Your task to perform on an android device: Open Google Maps Image 0: 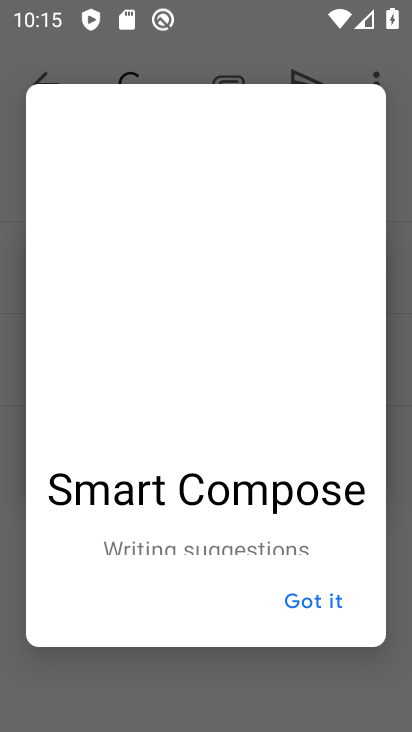
Step 0: drag from (201, 590) to (286, 144)
Your task to perform on an android device: Open Google Maps Image 1: 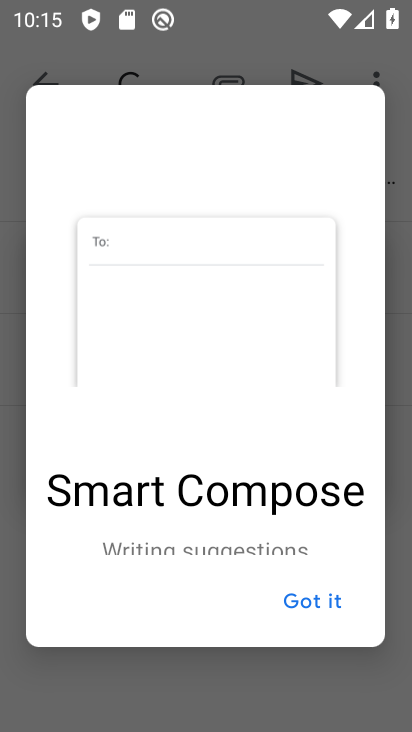
Step 1: press back button
Your task to perform on an android device: Open Google Maps Image 2: 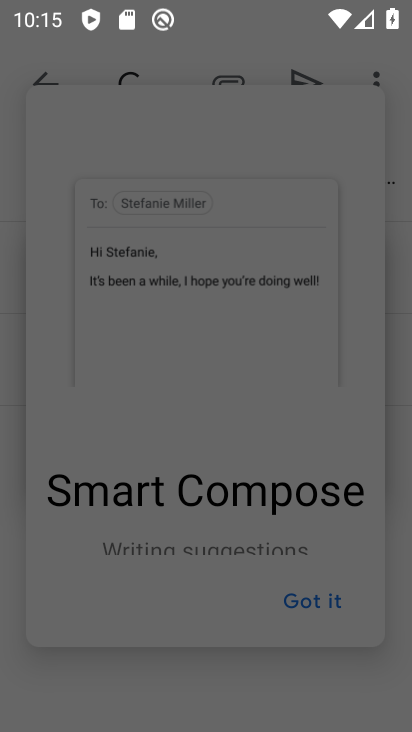
Step 2: press back button
Your task to perform on an android device: Open Google Maps Image 3: 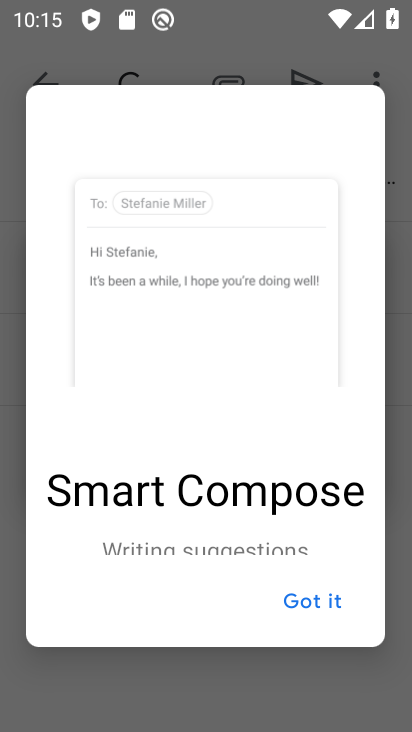
Step 3: press home button
Your task to perform on an android device: Open Google Maps Image 4: 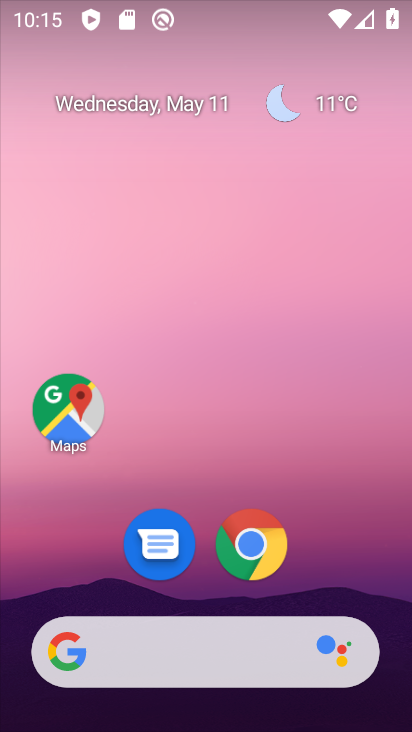
Step 4: click (64, 397)
Your task to perform on an android device: Open Google Maps Image 5: 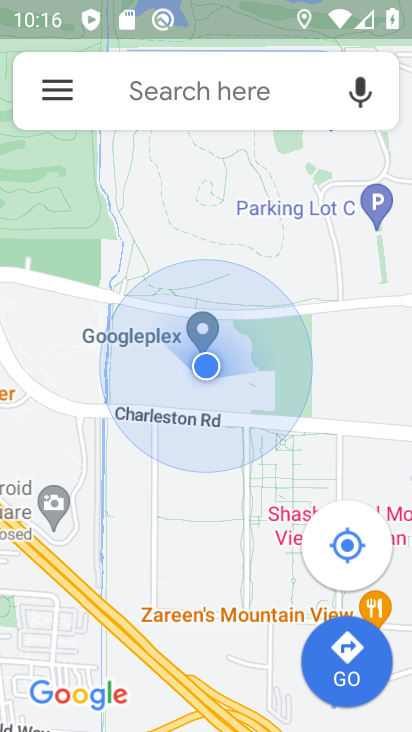
Step 5: task complete